Your task to perform on an android device: allow notifications from all sites in the chrome app Image 0: 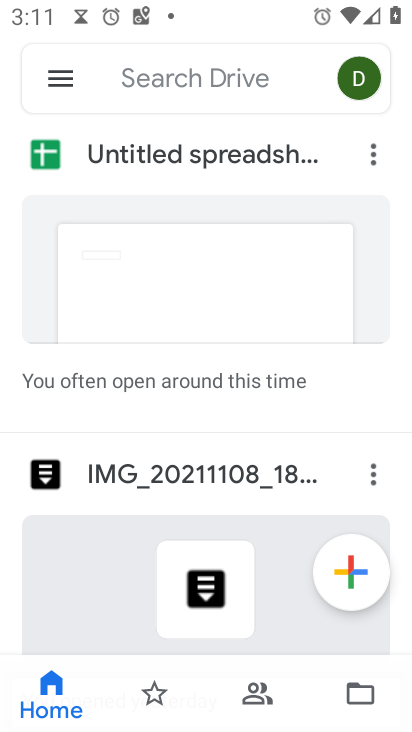
Step 0: press back button
Your task to perform on an android device: allow notifications from all sites in the chrome app Image 1: 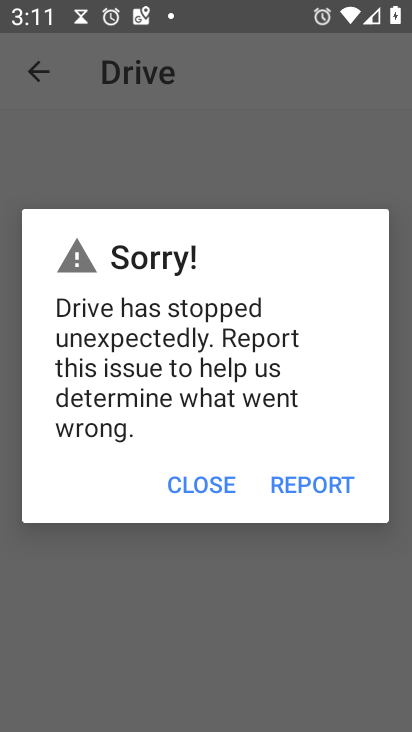
Step 1: press back button
Your task to perform on an android device: allow notifications from all sites in the chrome app Image 2: 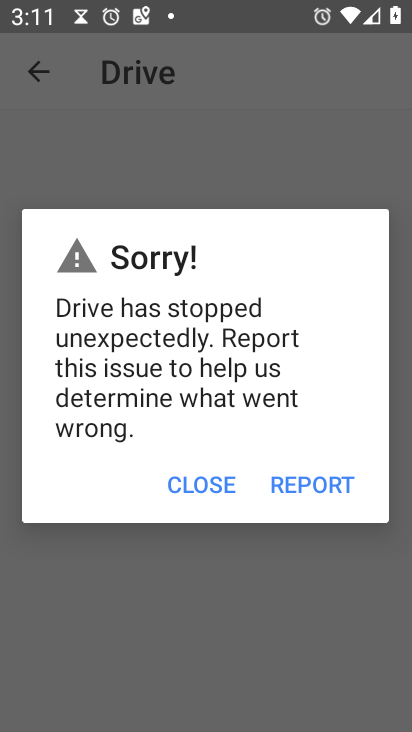
Step 2: press home button
Your task to perform on an android device: allow notifications from all sites in the chrome app Image 3: 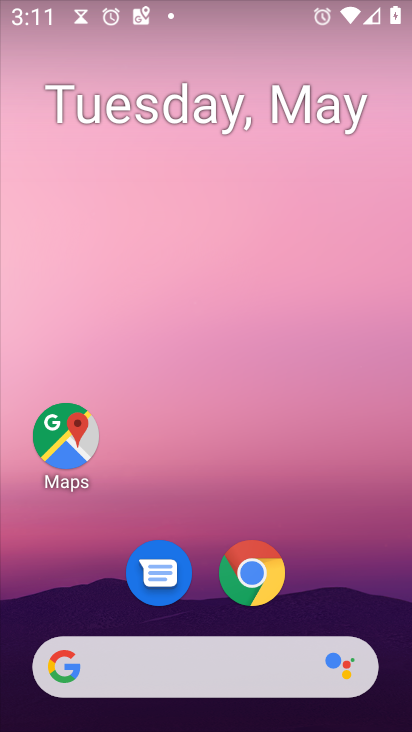
Step 3: drag from (312, 580) to (303, 27)
Your task to perform on an android device: allow notifications from all sites in the chrome app Image 4: 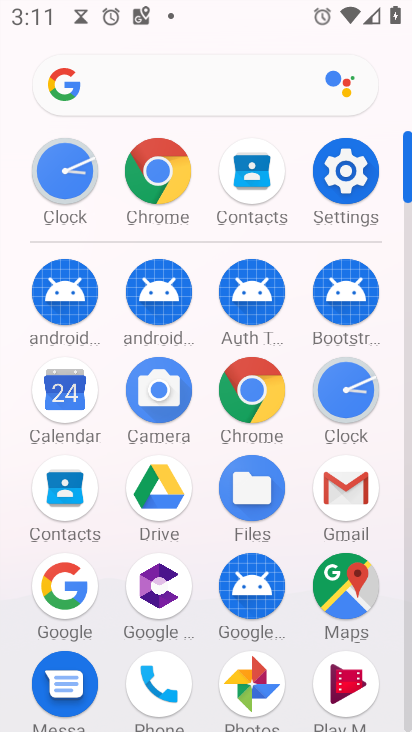
Step 4: click (153, 166)
Your task to perform on an android device: allow notifications from all sites in the chrome app Image 5: 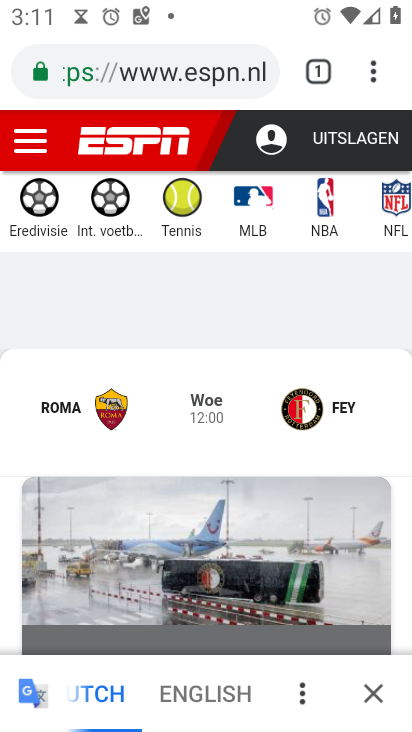
Step 5: drag from (369, 81) to (152, 572)
Your task to perform on an android device: allow notifications from all sites in the chrome app Image 6: 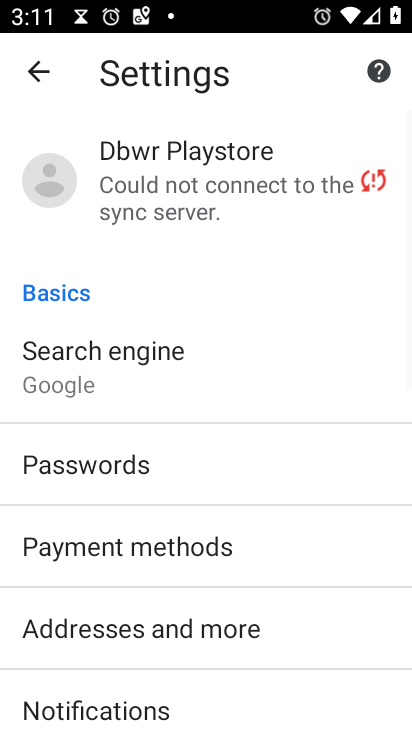
Step 6: drag from (207, 448) to (218, 151)
Your task to perform on an android device: allow notifications from all sites in the chrome app Image 7: 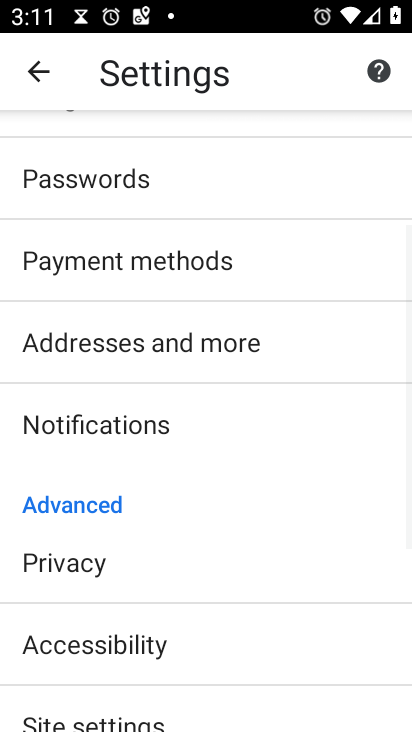
Step 7: drag from (251, 556) to (269, 214)
Your task to perform on an android device: allow notifications from all sites in the chrome app Image 8: 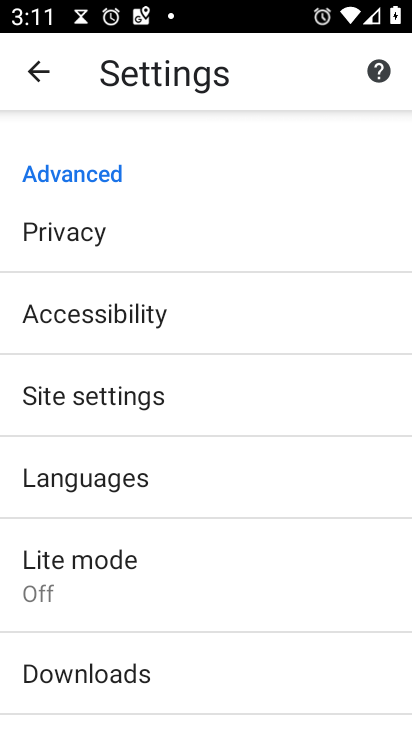
Step 8: click (130, 390)
Your task to perform on an android device: allow notifications from all sites in the chrome app Image 9: 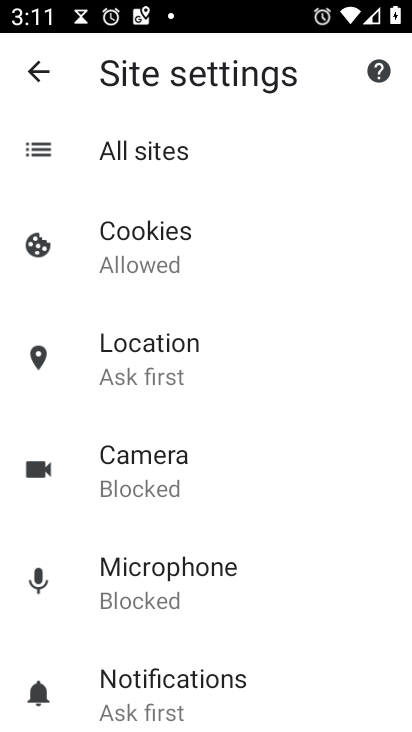
Step 9: drag from (257, 603) to (260, 266)
Your task to perform on an android device: allow notifications from all sites in the chrome app Image 10: 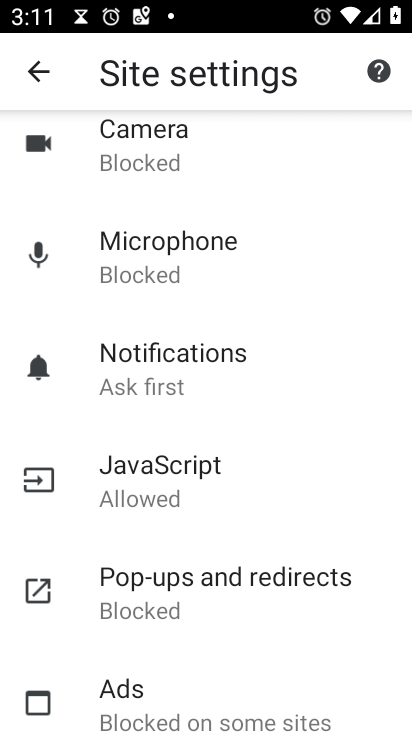
Step 10: click (182, 370)
Your task to perform on an android device: allow notifications from all sites in the chrome app Image 11: 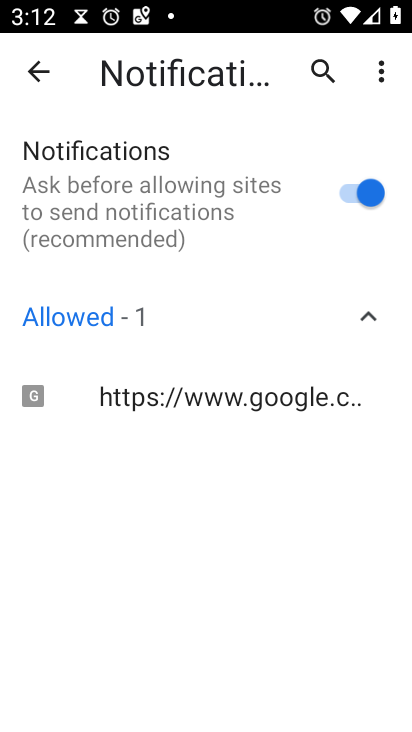
Step 11: task complete